Your task to perform on an android device: Do I have any events today? Image 0: 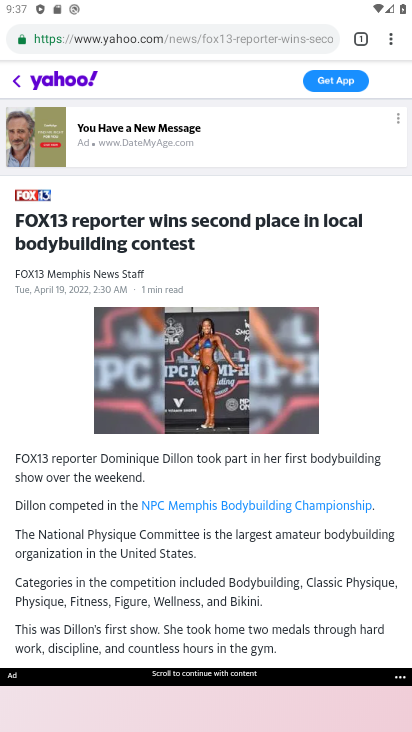
Step 0: press home button
Your task to perform on an android device: Do I have any events today? Image 1: 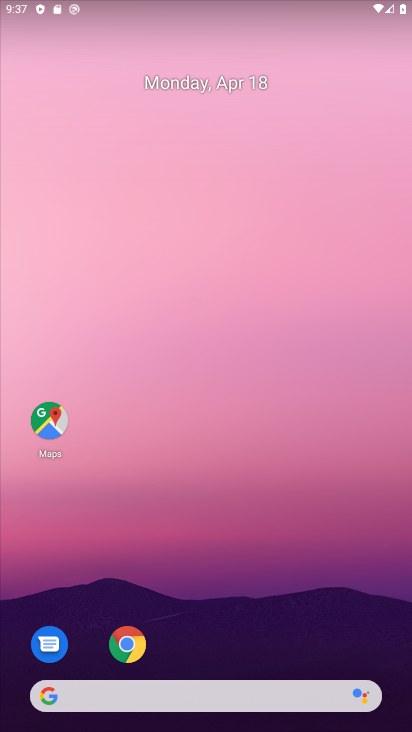
Step 1: drag from (207, 589) to (245, 2)
Your task to perform on an android device: Do I have any events today? Image 2: 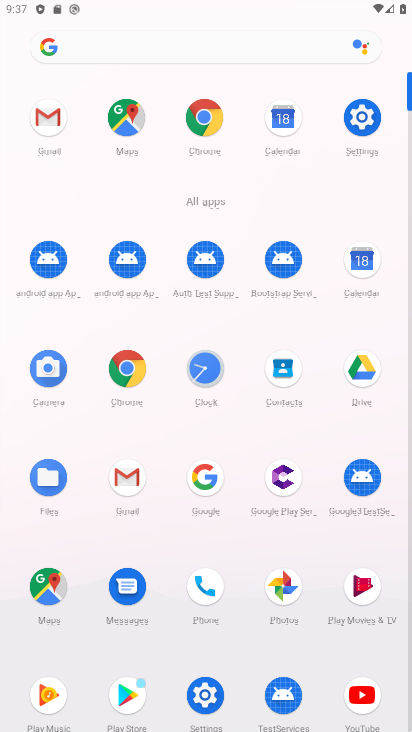
Step 2: click (278, 131)
Your task to perform on an android device: Do I have any events today? Image 3: 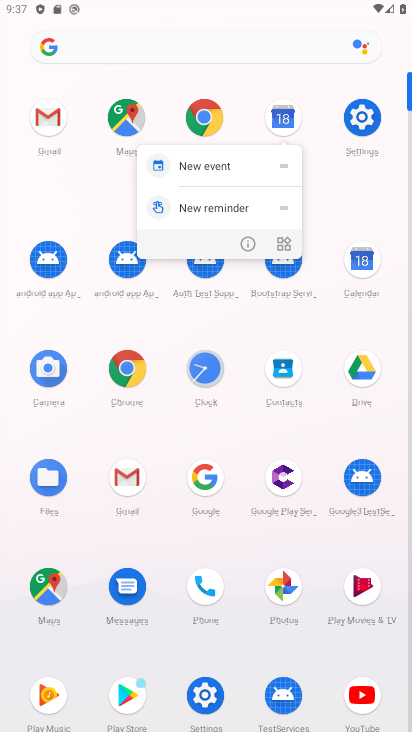
Step 3: click (283, 124)
Your task to perform on an android device: Do I have any events today? Image 4: 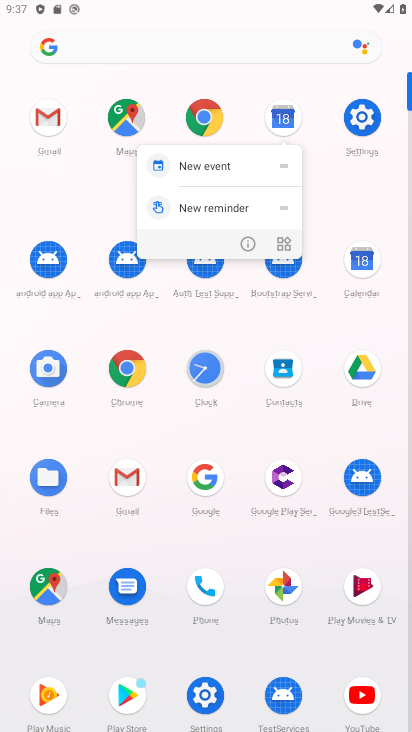
Step 4: click (283, 124)
Your task to perform on an android device: Do I have any events today? Image 5: 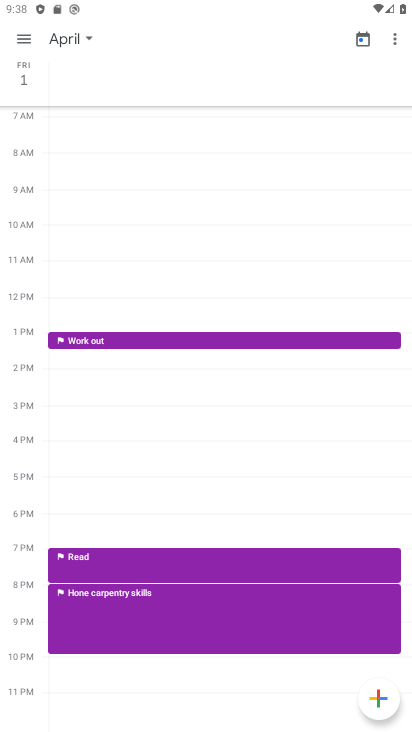
Step 5: click (24, 47)
Your task to perform on an android device: Do I have any events today? Image 6: 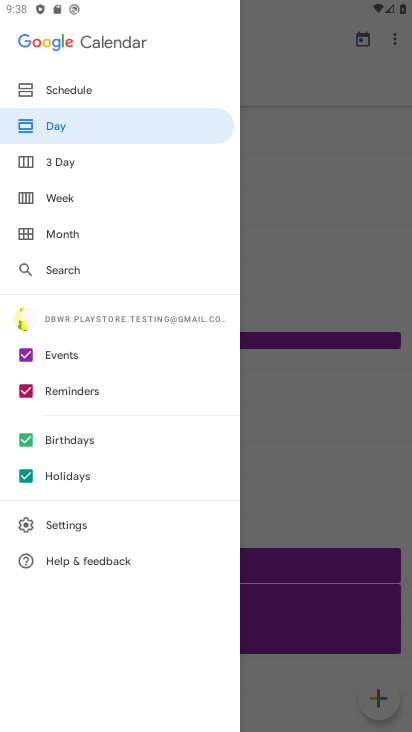
Step 6: click (23, 389)
Your task to perform on an android device: Do I have any events today? Image 7: 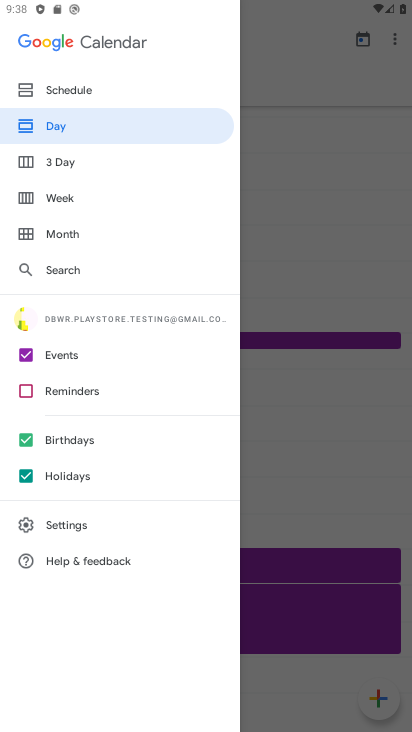
Step 7: click (28, 433)
Your task to perform on an android device: Do I have any events today? Image 8: 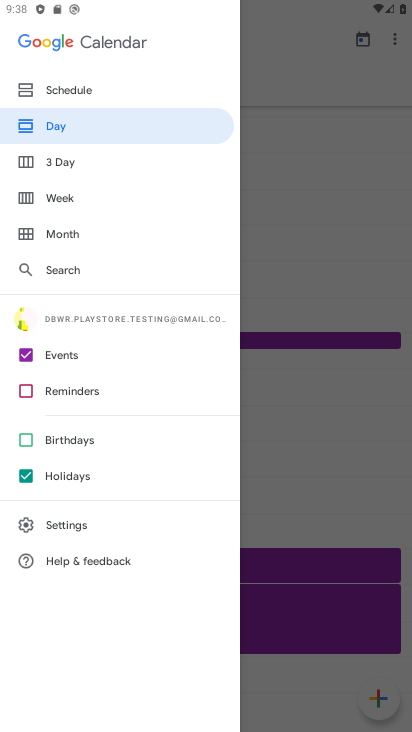
Step 8: click (27, 483)
Your task to perform on an android device: Do I have any events today? Image 9: 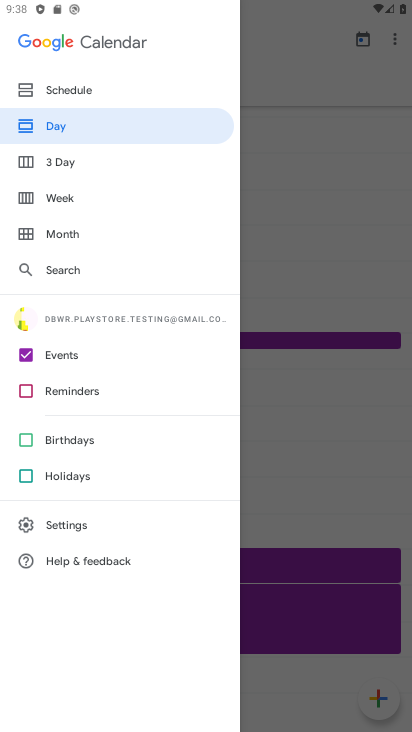
Step 9: click (73, 163)
Your task to perform on an android device: Do I have any events today? Image 10: 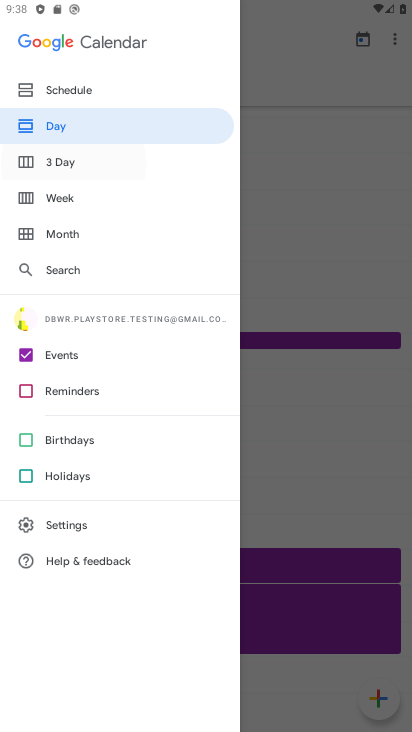
Step 10: click (73, 162)
Your task to perform on an android device: Do I have any events today? Image 11: 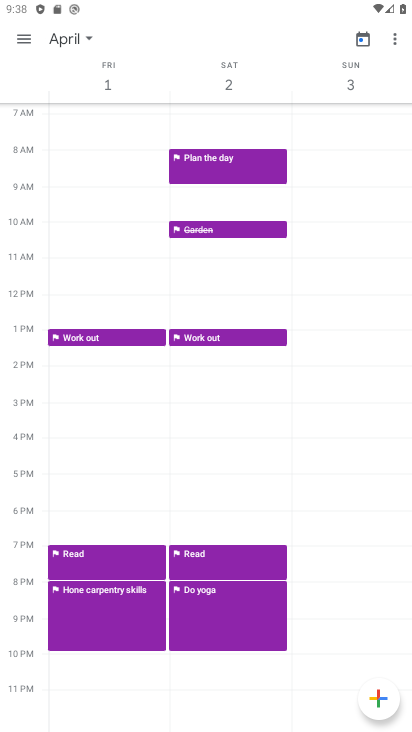
Step 11: drag from (350, 75) to (30, 60)
Your task to perform on an android device: Do I have any events today? Image 12: 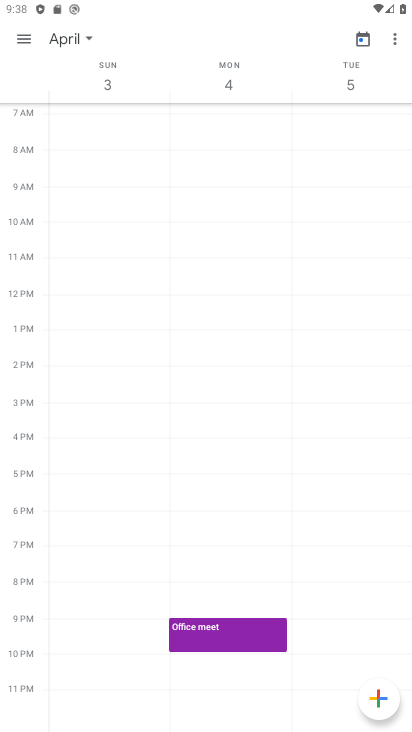
Step 12: drag from (372, 85) to (4, 40)
Your task to perform on an android device: Do I have any events today? Image 13: 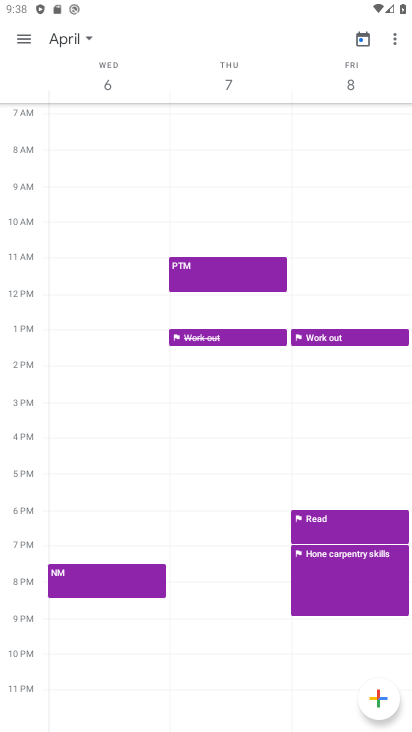
Step 13: drag from (313, 91) to (30, 112)
Your task to perform on an android device: Do I have any events today? Image 14: 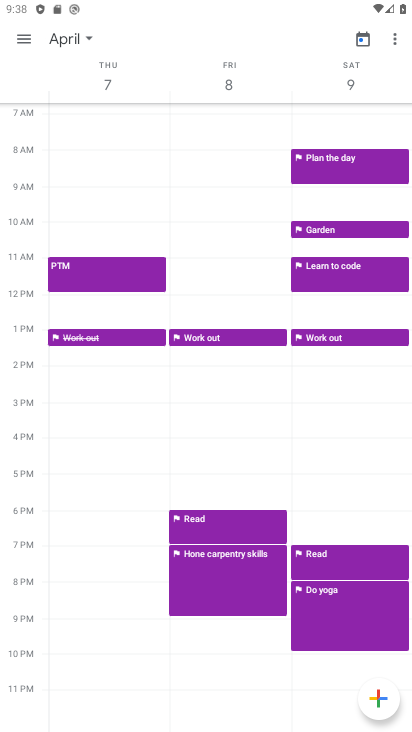
Step 14: click (71, 40)
Your task to perform on an android device: Do I have any events today? Image 15: 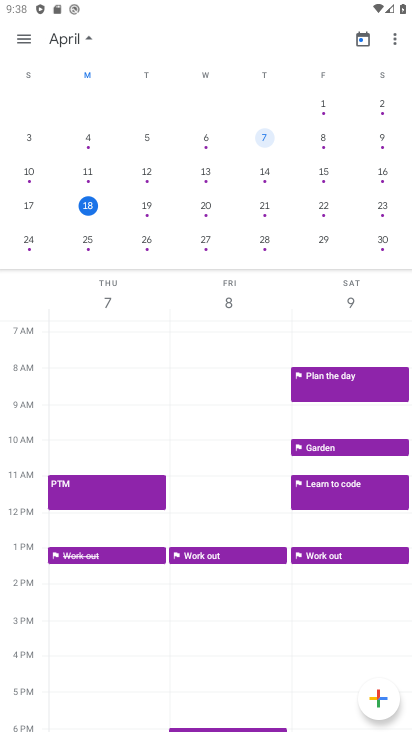
Step 15: click (91, 206)
Your task to perform on an android device: Do I have any events today? Image 16: 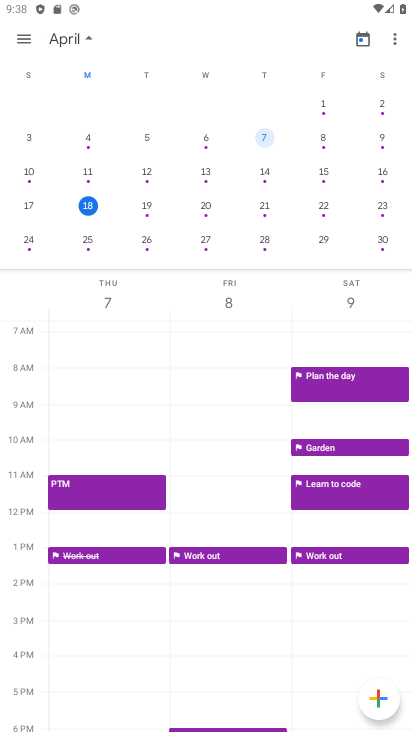
Step 16: click (89, 207)
Your task to perform on an android device: Do I have any events today? Image 17: 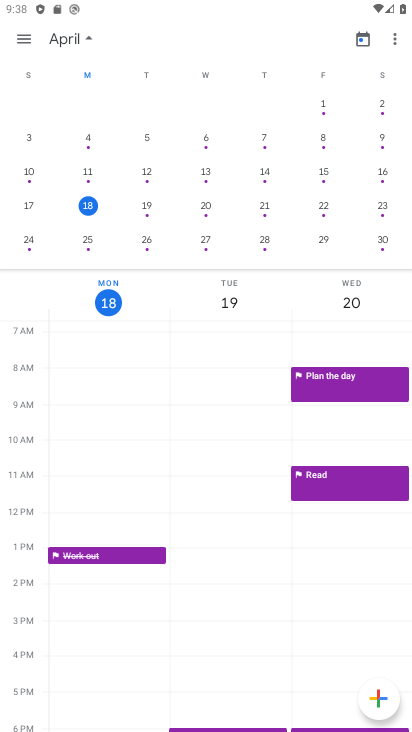
Step 17: click (22, 35)
Your task to perform on an android device: Do I have any events today? Image 18: 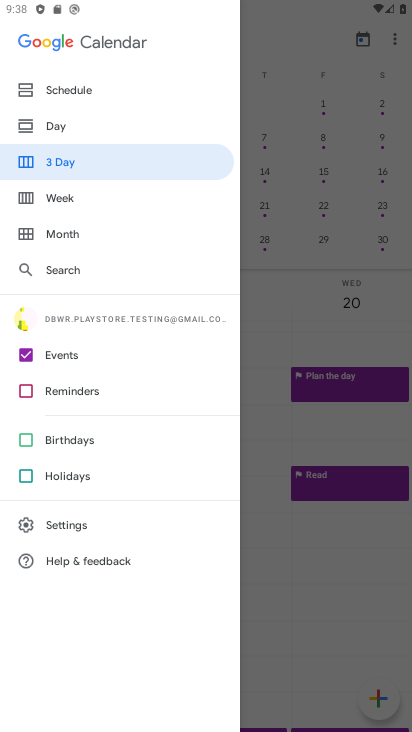
Step 18: click (55, 118)
Your task to perform on an android device: Do I have any events today? Image 19: 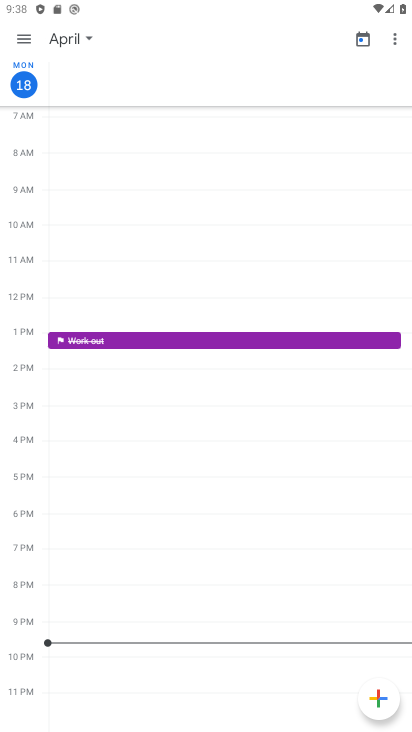
Step 19: task complete